Your task to perform on an android device: open app "Microsoft Excel" (install if not already installed) Image 0: 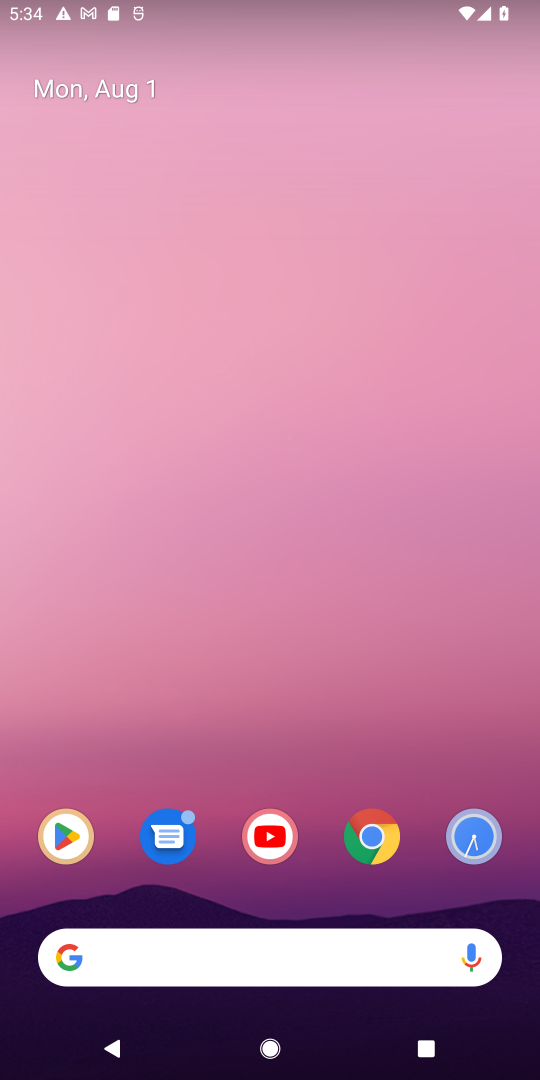
Step 0: click (55, 836)
Your task to perform on an android device: open app "Microsoft Excel" (install if not already installed) Image 1: 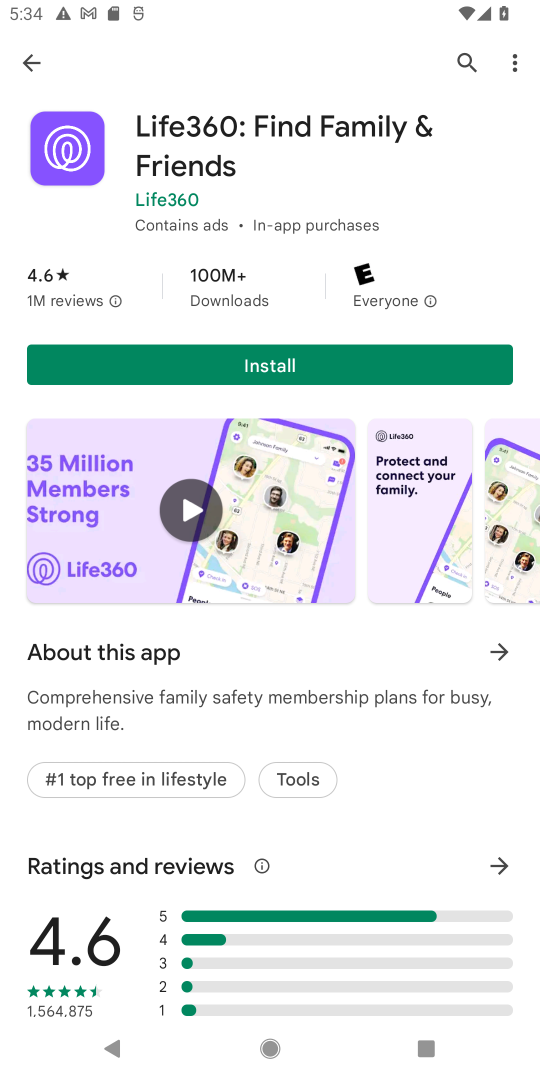
Step 1: click (470, 58)
Your task to perform on an android device: open app "Microsoft Excel" (install if not already installed) Image 2: 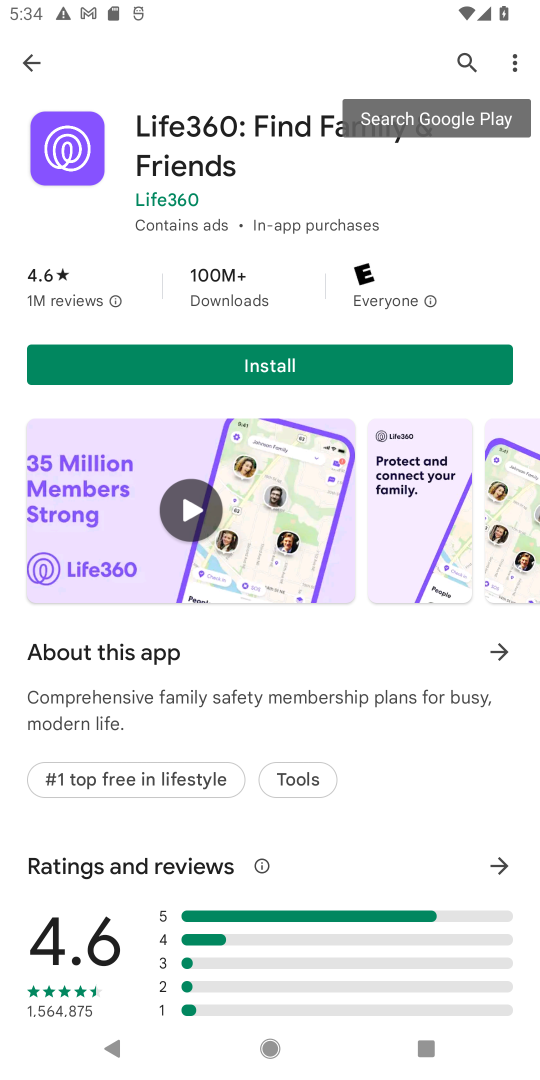
Step 2: click (463, 66)
Your task to perform on an android device: open app "Microsoft Excel" (install if not already installed) Image 3: 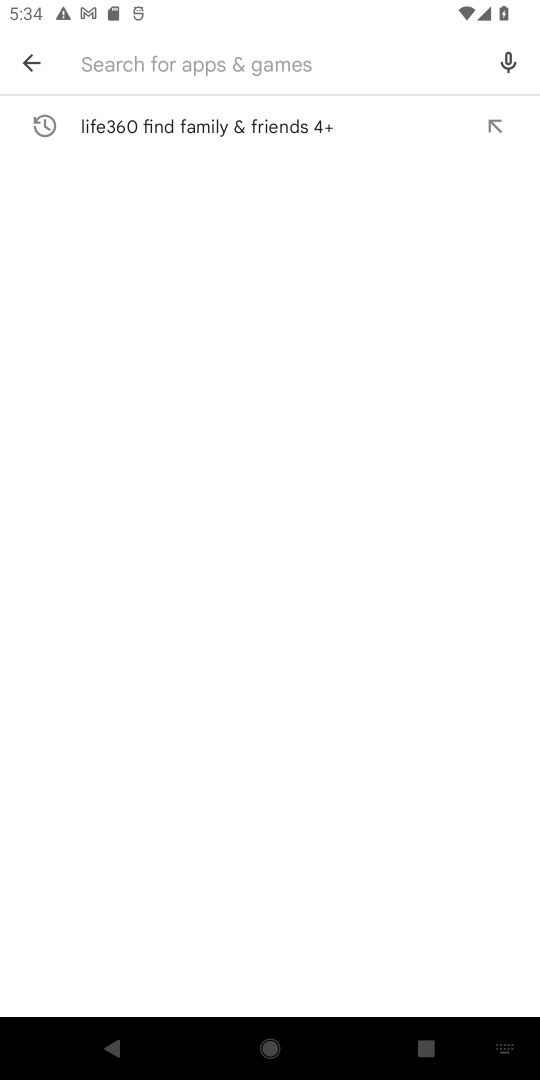
Step 3: click (313, 68)
Your task to perform on an android device: open app "Microsoft Excel" (install if not already installed) Image 4: 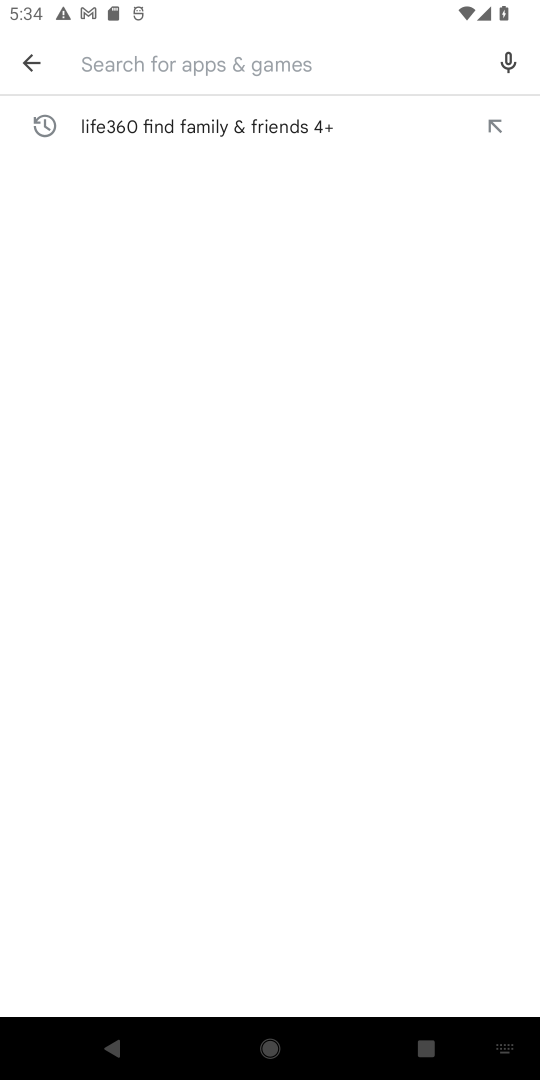
Step 4: type "Microsoft Excel"
Your task to perform on an android device: open app "Microsoft Excel" (install if not already installed) Image 5: 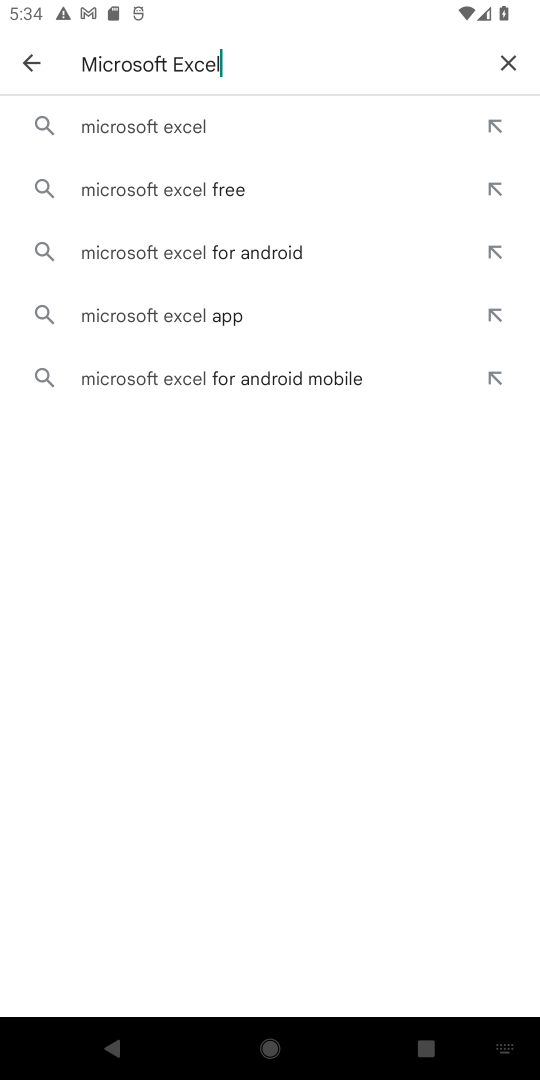
Step 5: click (183, 128)
Your task to perform on an android device: open app "Microsoft Excel" (install if not already installed) Image 6: 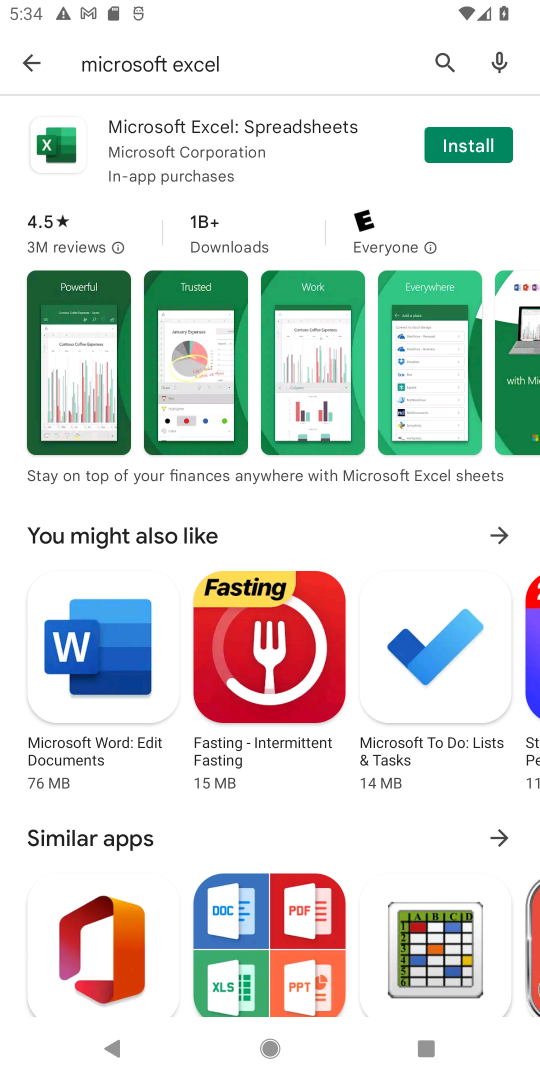
Step 6: click (466, 141)
Your task to perform on an android device: open app "Microsoft Excel" (install if not already installed) Image 7: 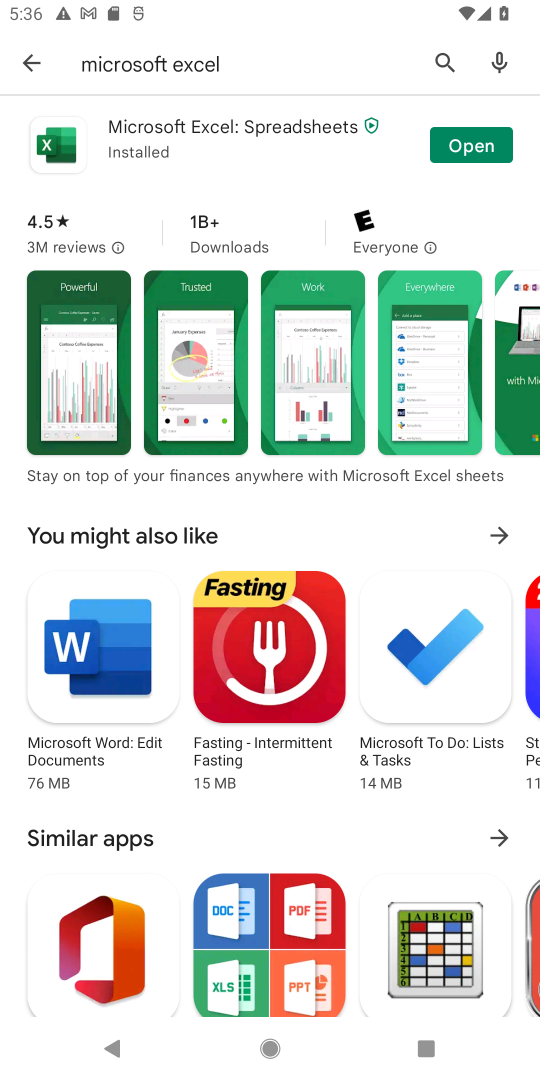
Step 7: click (466, 138)
Your task to perform on an android device: open app "Microsoft Excel" (install if not already installed) Image 8: 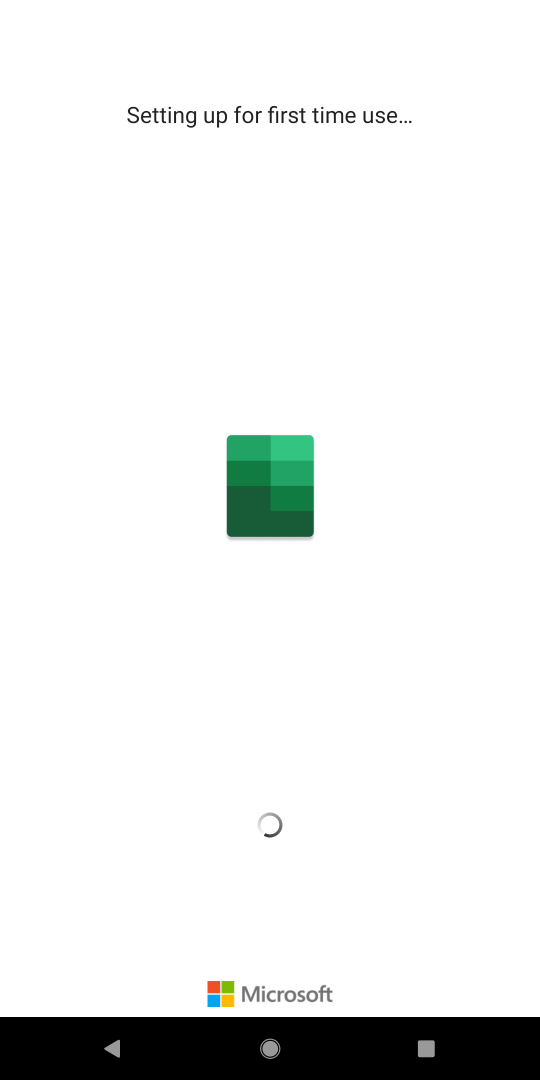
Step 8: task complete